Your task to perform on an android device: Do I have any events tomorrow? Image 0: 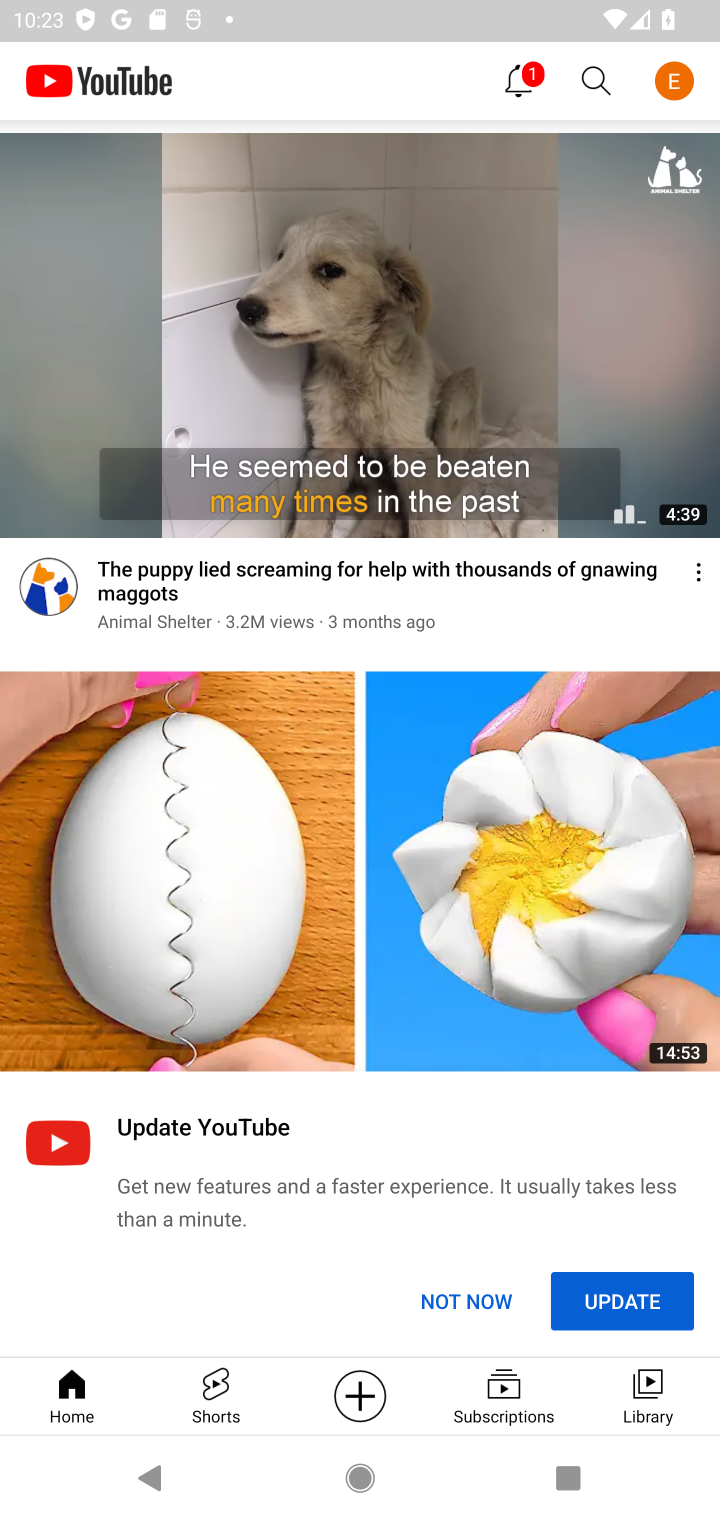
Step 0: press home button
Your task to perform on an android device: Do I have any events tomorrow? Image 1: 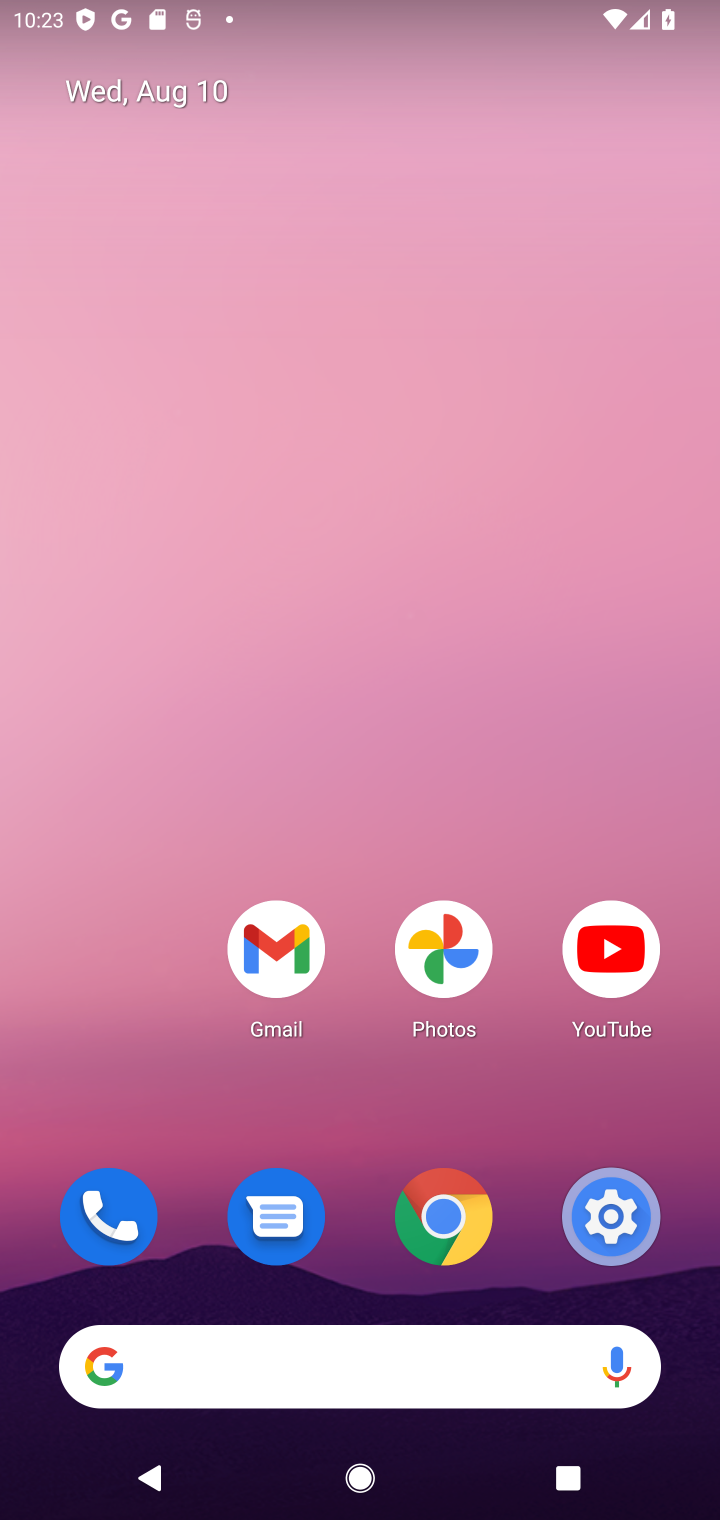
Step 1: drag from (242, 981) to (616, 249)
Your task to perform on an android device: Do I have any events tomorrow? Image 2: 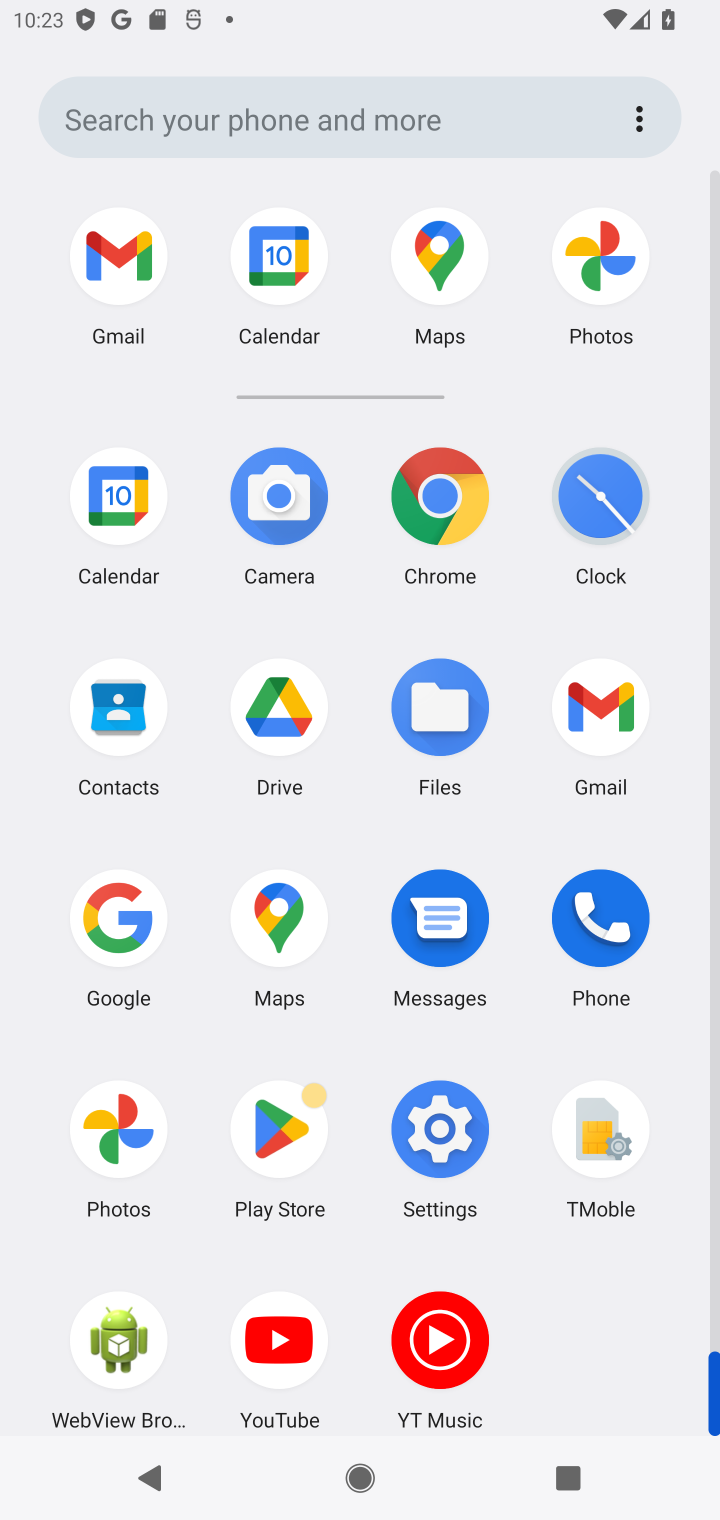
Step 2: click (255, 277)
Your task to perform on an android device: Do I have any events tomorrow? Image 3: 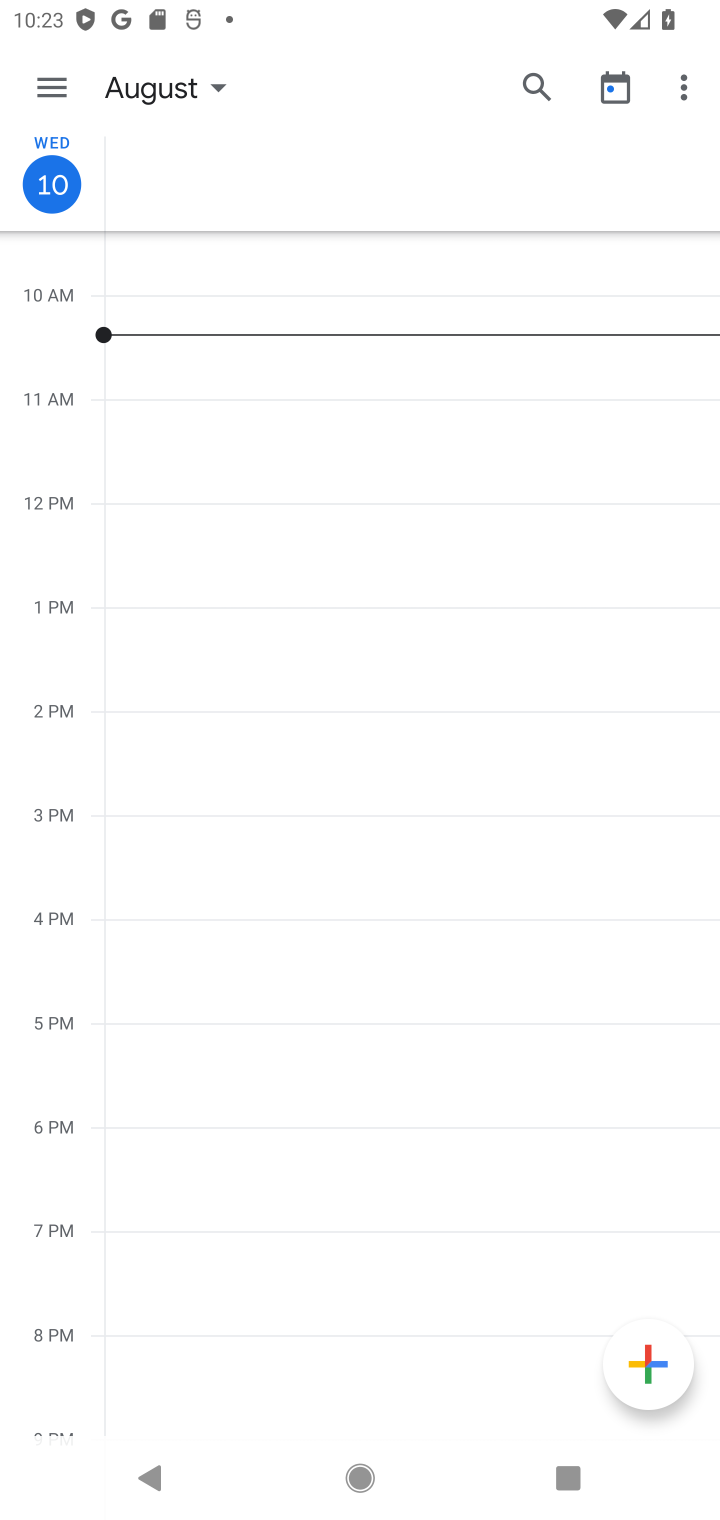
Step 3: click (139, 84)
Your task to perform on an android device: Do I have any events tomorrow? Image 4: 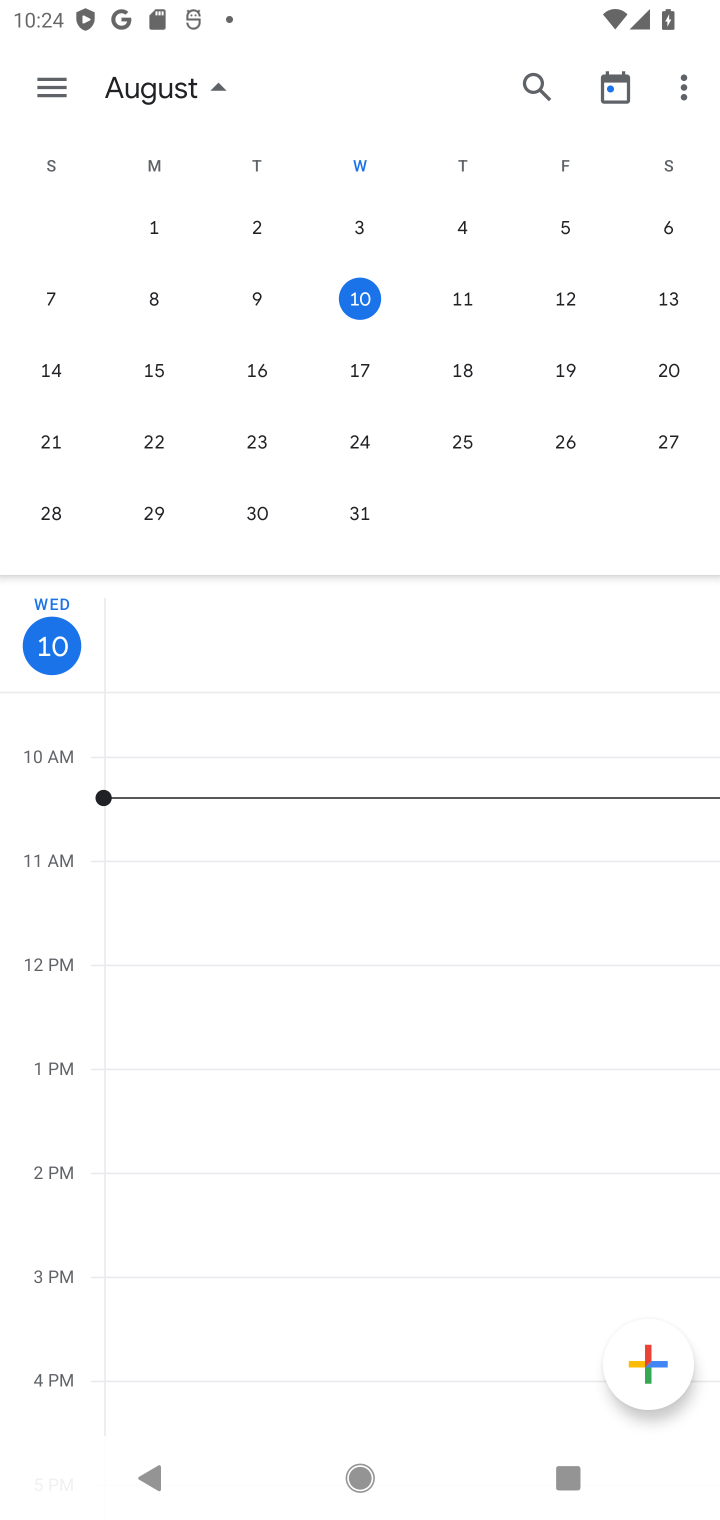
Step 4: click (466, 304)
Your task to perform on an android device: Do I have any events tomorrow? Image 5: 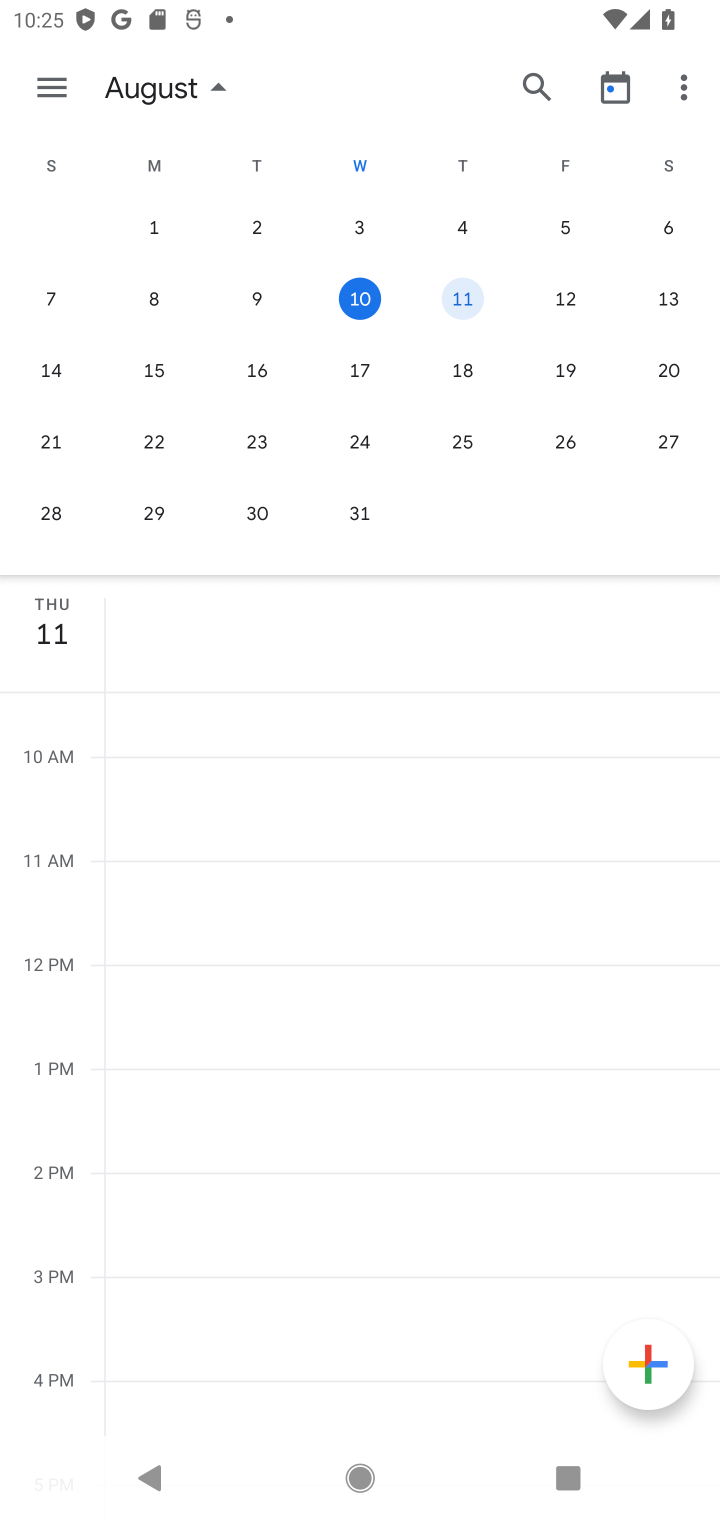
Step 5: task complete